Your task to perform on an android device: open chrome privacy settings Image 0: 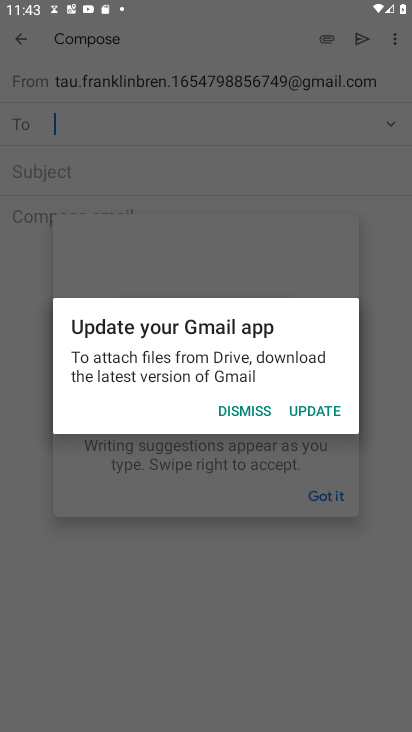
Step 0: press home button
Your task to perform on an android device: open chrome privacy settings Image 1: 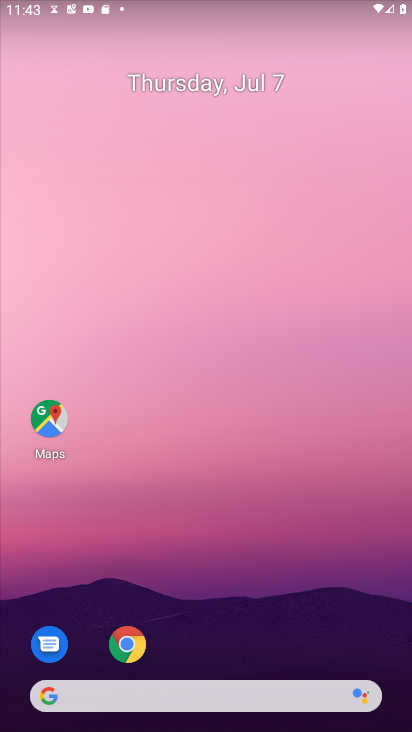
Step 1: drag from (277, 604) to (277, 128)
Your task to perform on an android device: open chrome privacy settings Image 2: 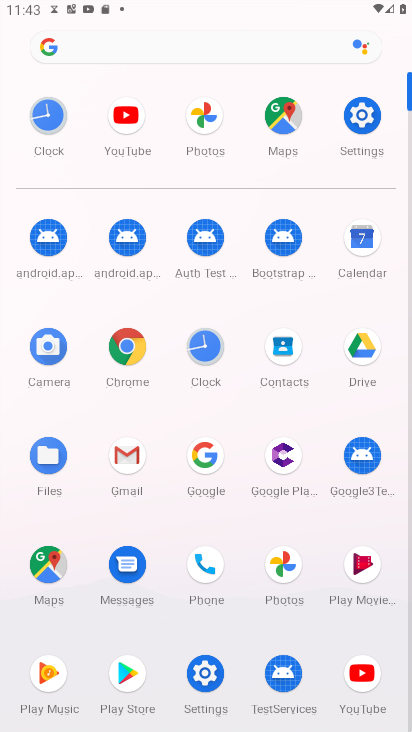
Step 2: click (135, 342)
Your task to perform on an android device: open chrome privacy settings Image 3: 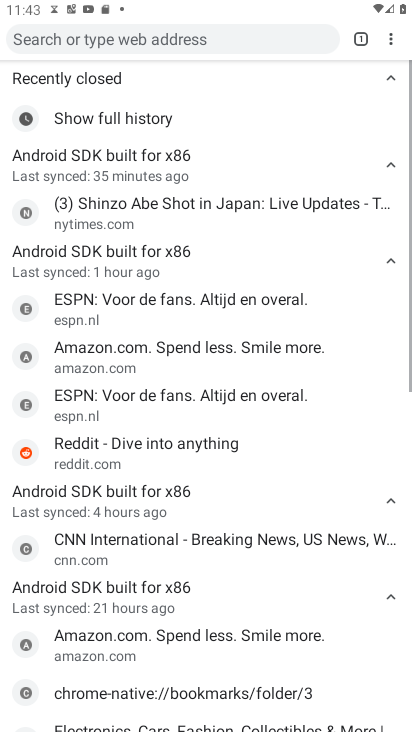
Step 3: drag from (391, 39) to (281, 324)
Your task to perform on an android device: open chrome privacy settings Image 4: 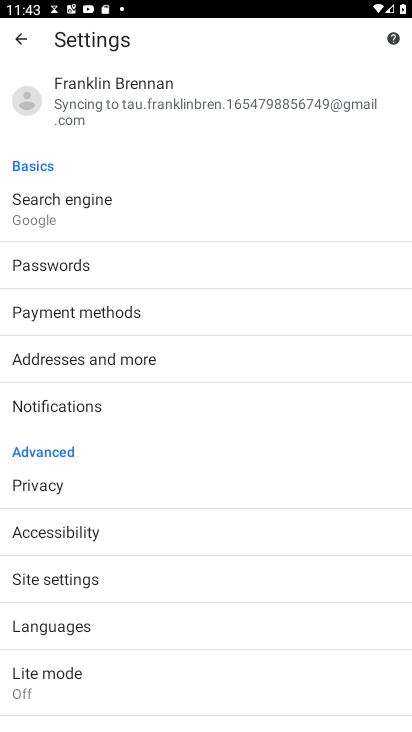
Step 4: click (63, 493)
Your task to perform on an android device: open chrome privacy settings Image 5: 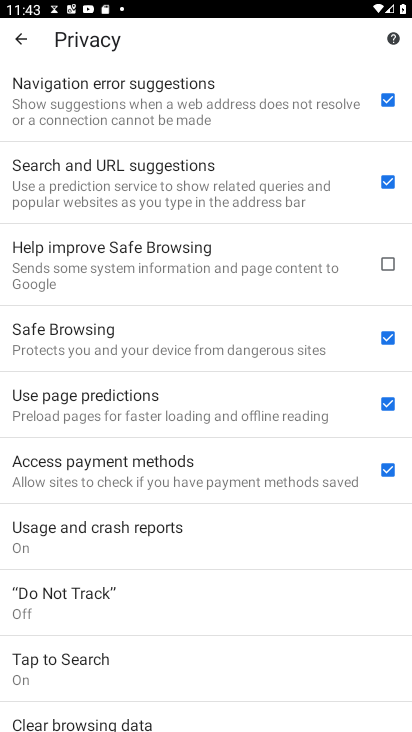
Step 5: task complete